Your task to perform on an android device: manage bookmarks in the chrome app Image 0: 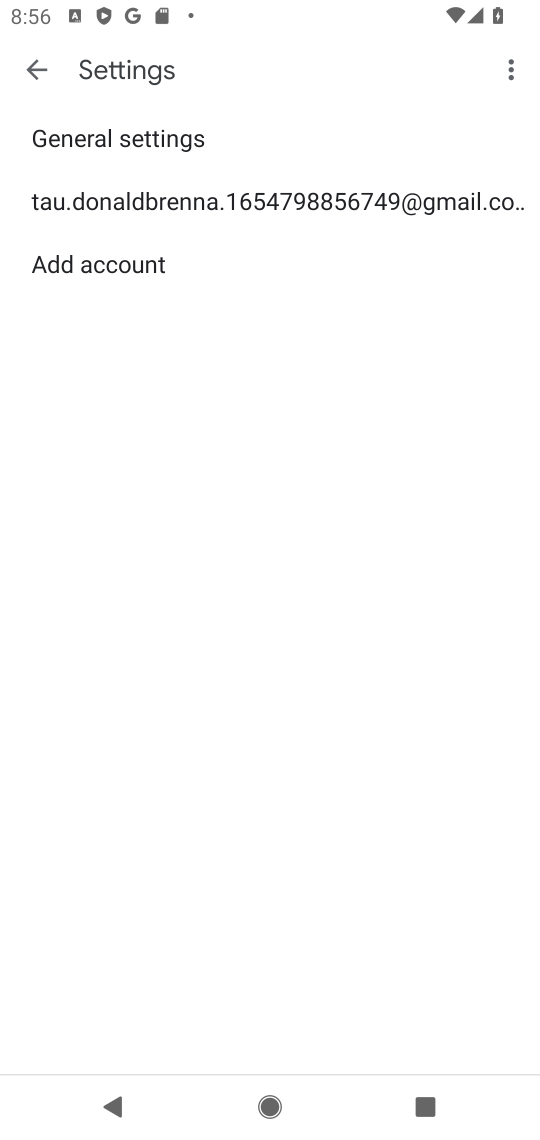
Step 0: press home button
Your task to perform on an android device: manage bookmarks in the chrome app Image 1: 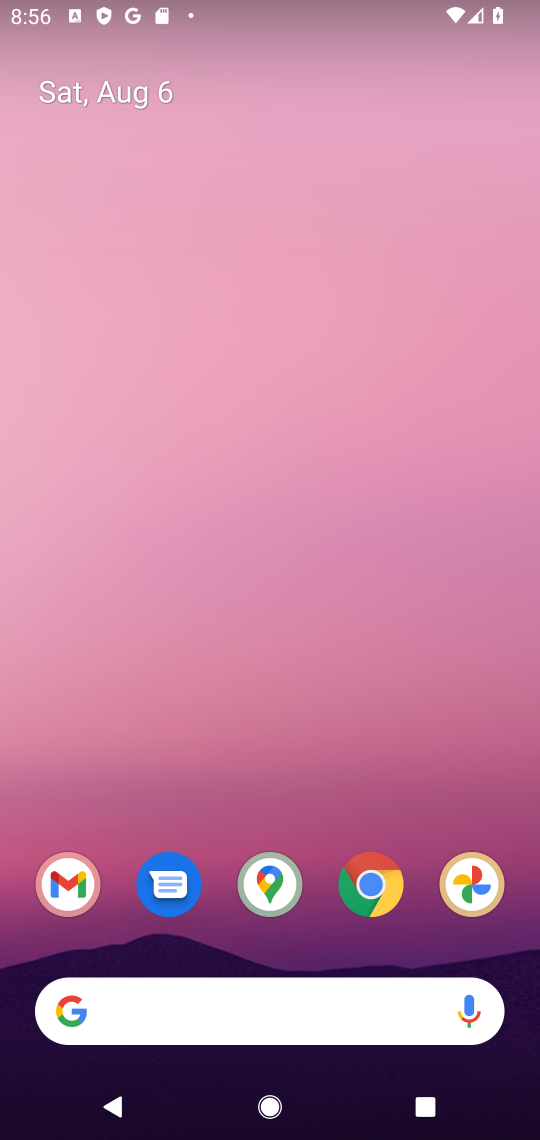
Step 1: click (373, 884)
Your task to perform on an android device: manage bookmarks in the chrome app Image 2: 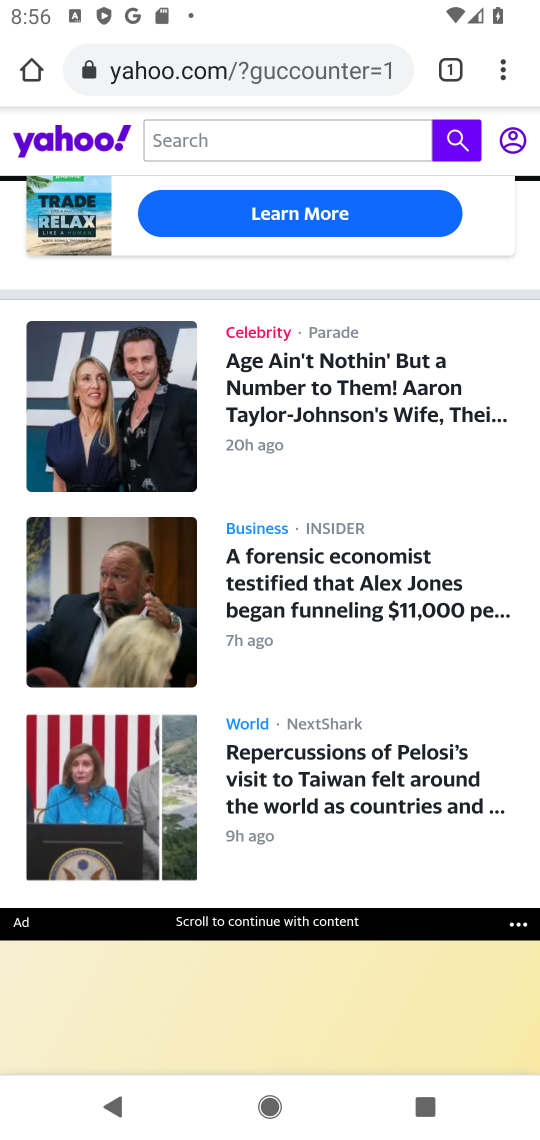
Step 2: click (496, 80)
Your task to perform on an android device: manage bookmarks in the chrome app Image 3: 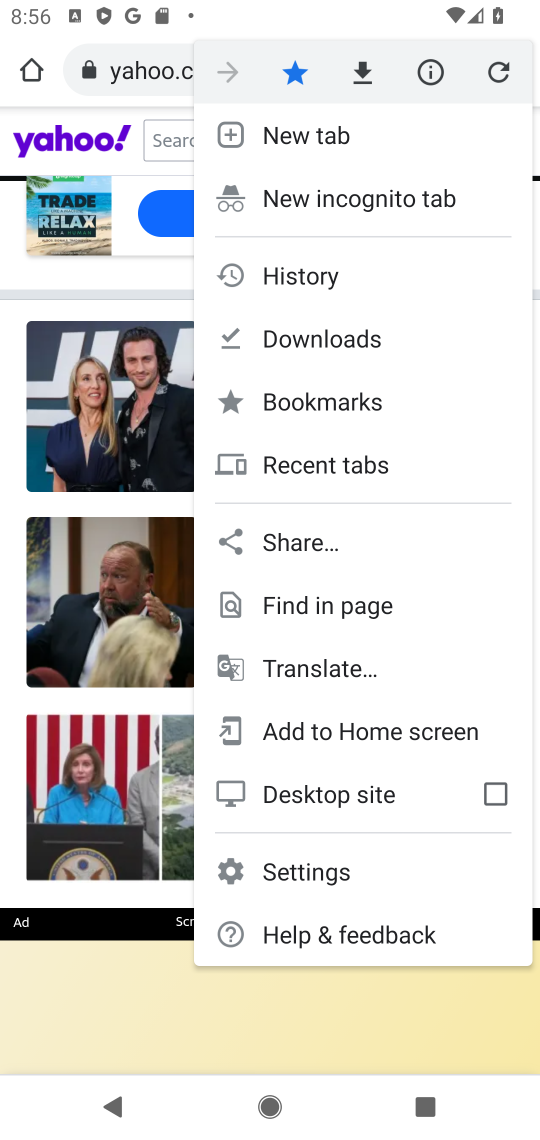
Step 3: click (314, 394)
Your task to perform on an android device: manage bookmarks in the chrome app Image 4: 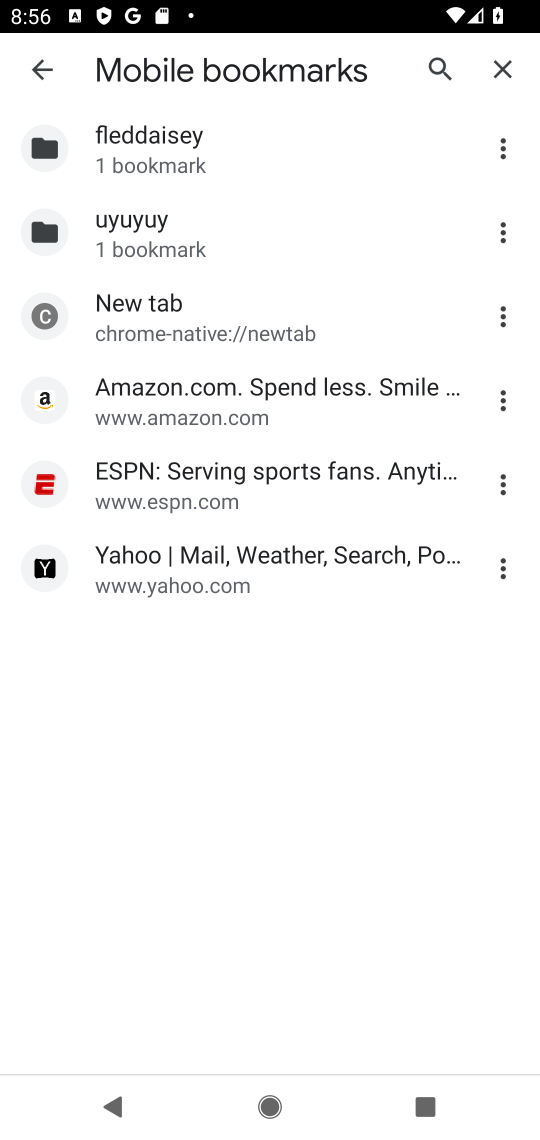
Step 4: click (197, 566)
Your task to perform on an android device: manage bookmarks in the chrome app Image 5: 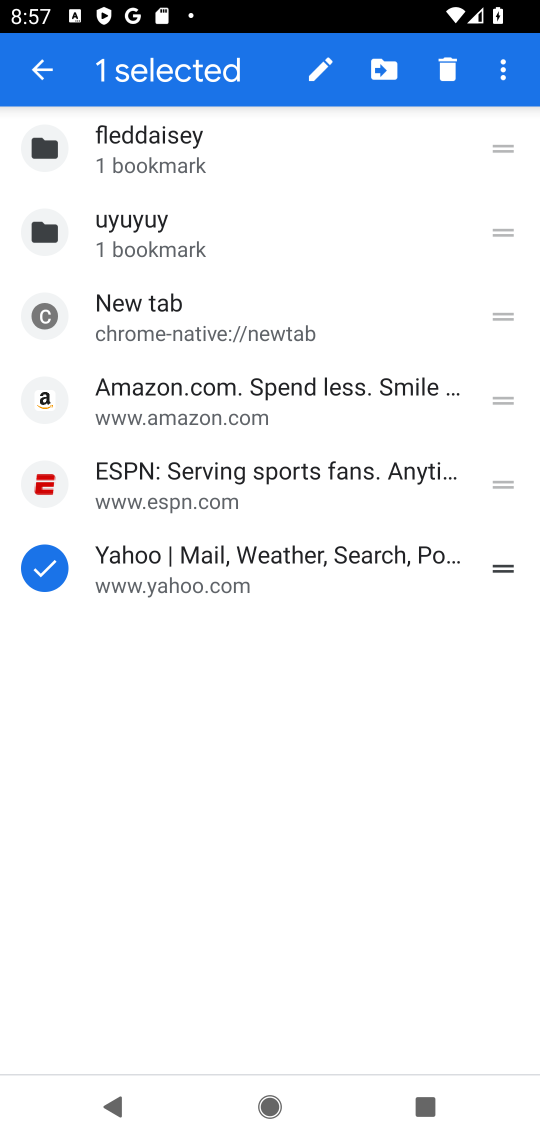
Step 5: click (381, 69)
Your task to perform on an android device: manage bookmarks in the chrome app Image 6: 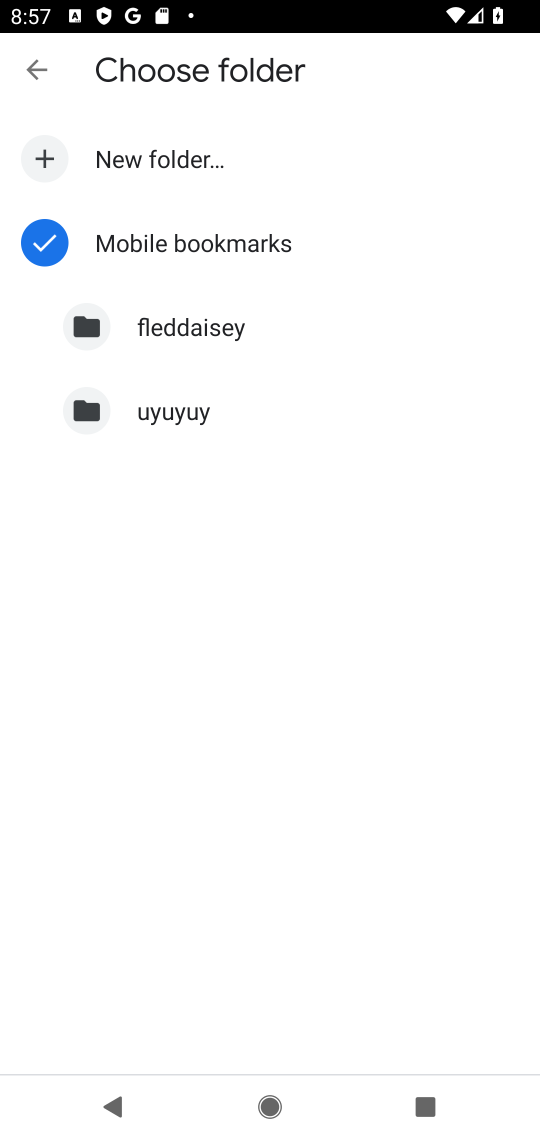
Step 6: click (52, 159)
Your task to perform on an android device: manage bookmarks in the chrome app Image 7: 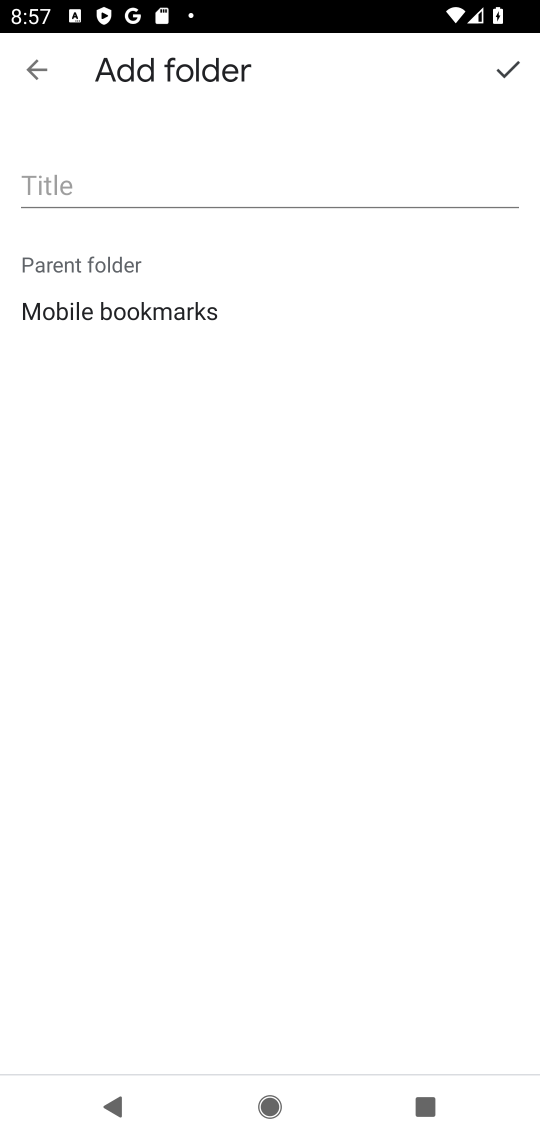
Step 7: click (204, 174)
Your task to perform on an android device: manage bookmarks in the chrome app Image 8: 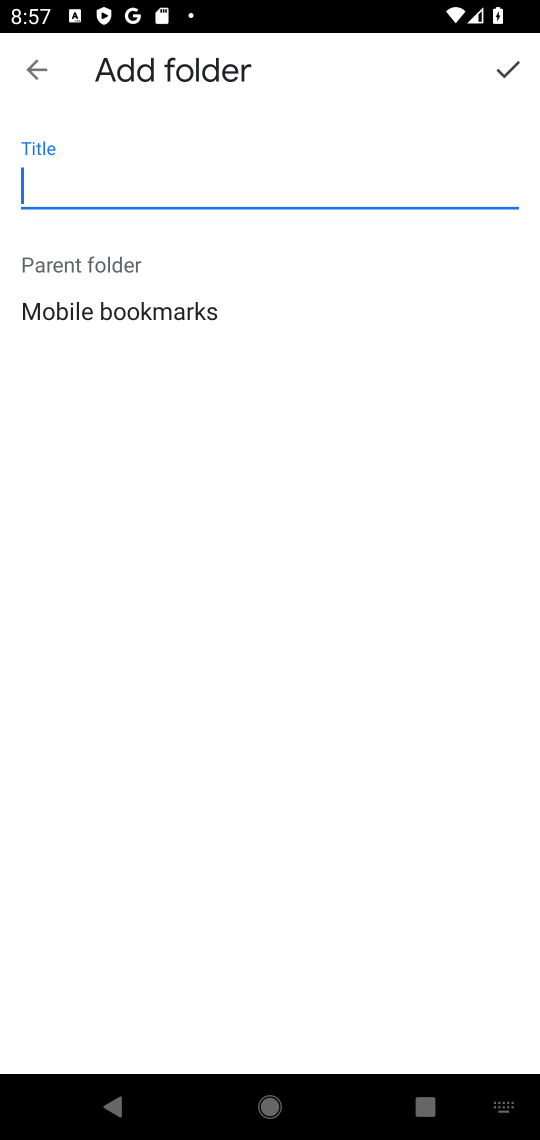
Step 8: type "bb"
Your task to perform on an android device: manage bookmarks in the chrome app Image 9: 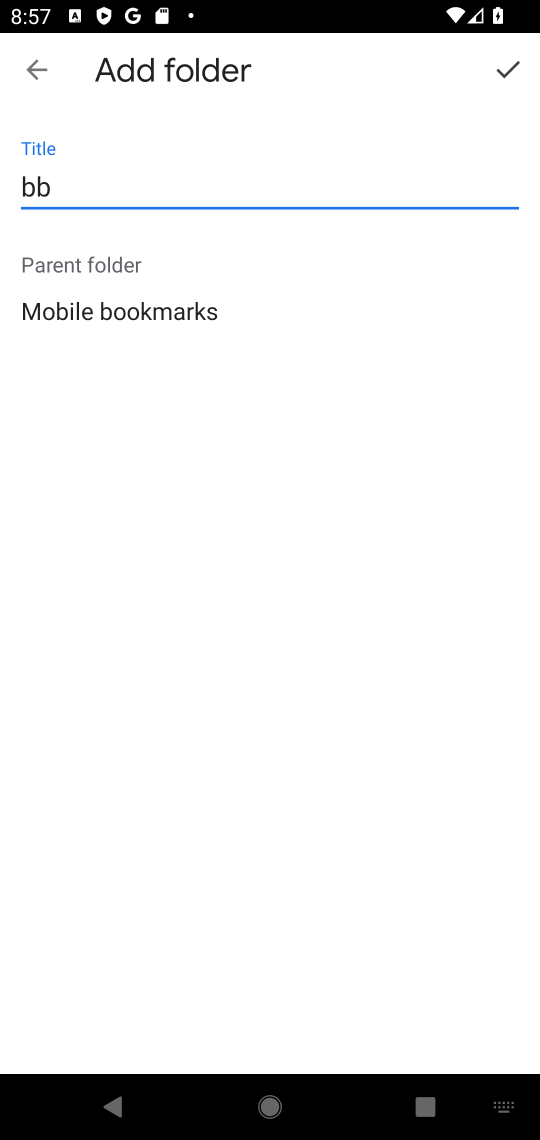
Step 9: click (508, 66)
Your task to perform on an android device: manage bookmarks in the chrome app Image 10: 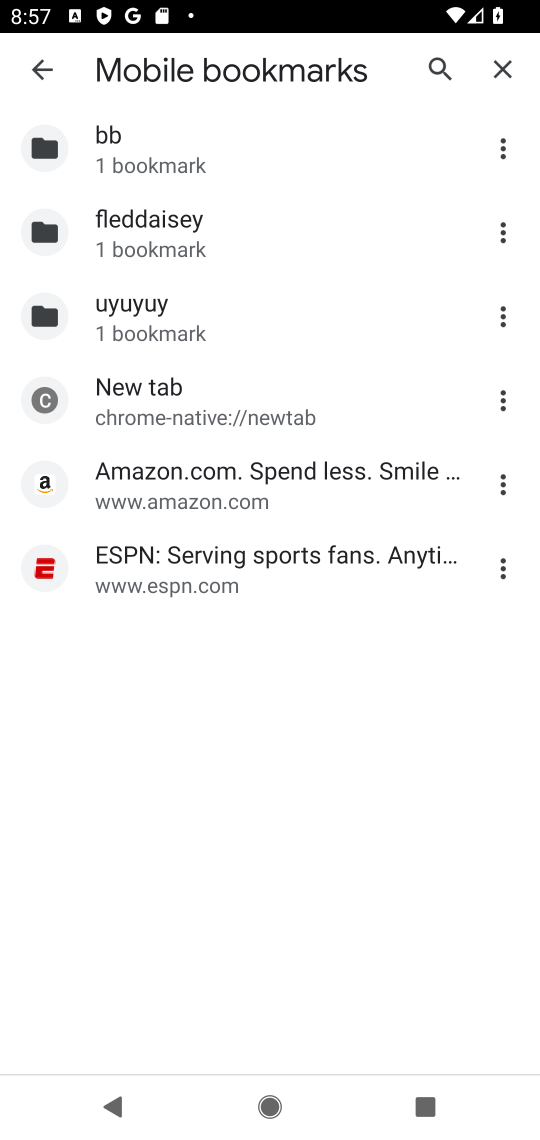
Step 10: task complete